Your task to perform on an android device: Is it going to rain this weekend? Image 0: 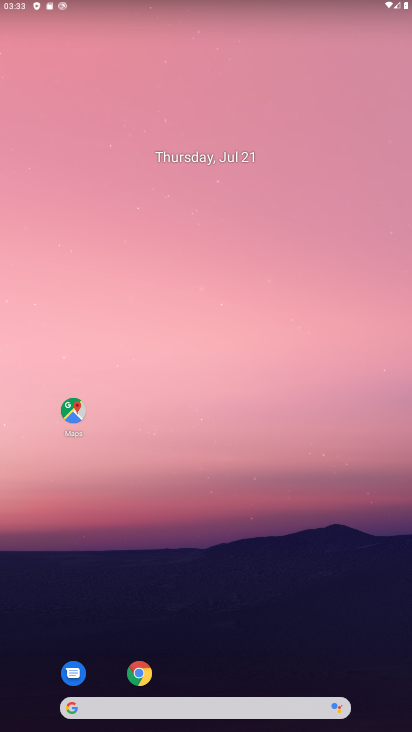
Step 0: drag from (295, 644) to (220, 43)
Your task to perform on an android device: Is it going to rain this weekend? Image 1: 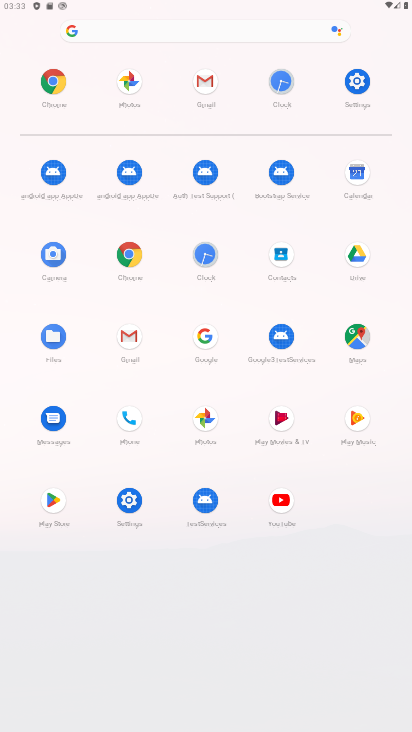
Step 1: click (52, 78)
Your task to perform on an android device: Is it going to rain this weekend? Image 2: 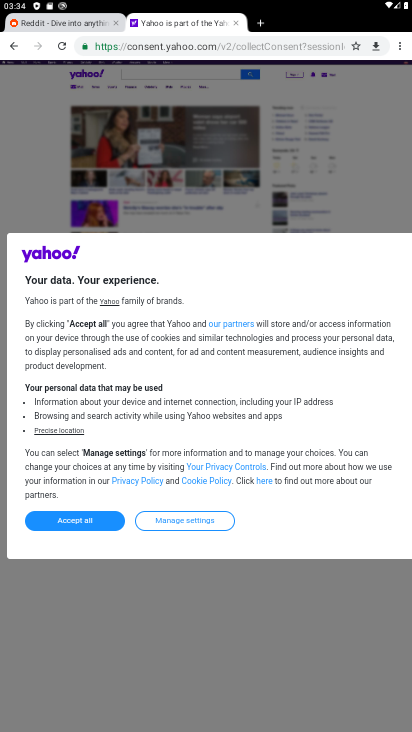
Step 2: click (302, 42)
Your task to perform on an android device: Is it going to rain this weekend? Image 3: 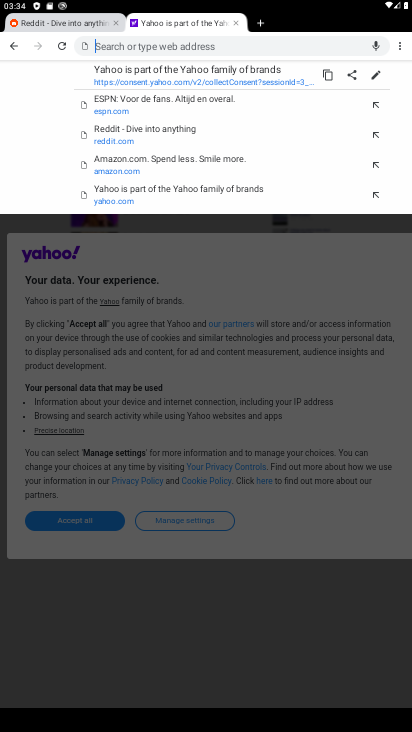
Step 3: type "weather"
Your task to perform on an android device: Is it going to rain this weekend? Image 4: 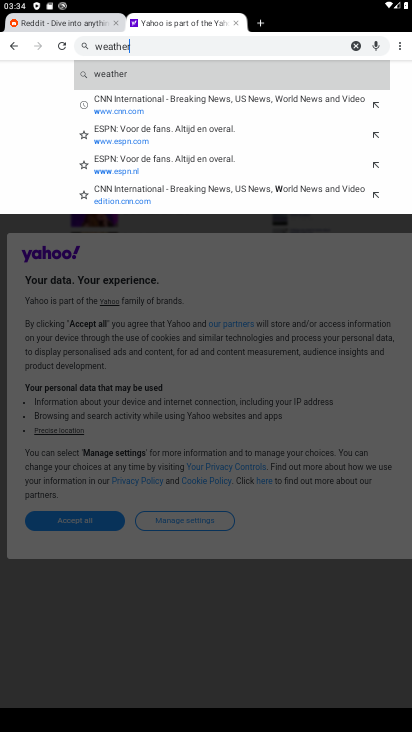
Step 4: type ""
Your task to perform on an android device: Is it going to rain this weekend? Image 5: 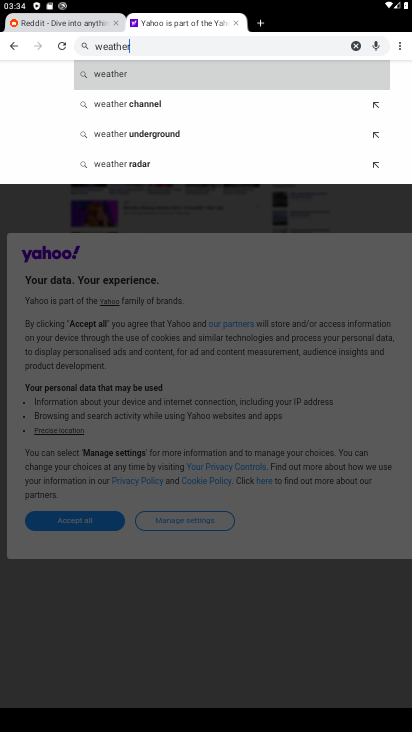
Step 5: click (162, 71)
Your task to perform on an android device: Is it going to rain this weekend? Image 6: 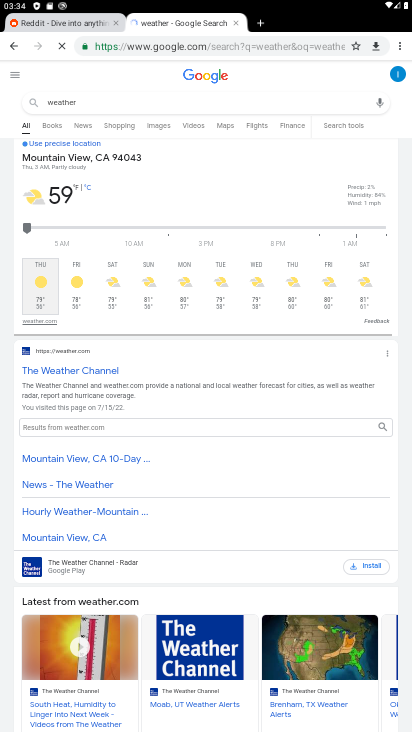
Step 6: click (119, 279)
Your task to perform on an android device: Is it going to rain this weekend? Image 7: 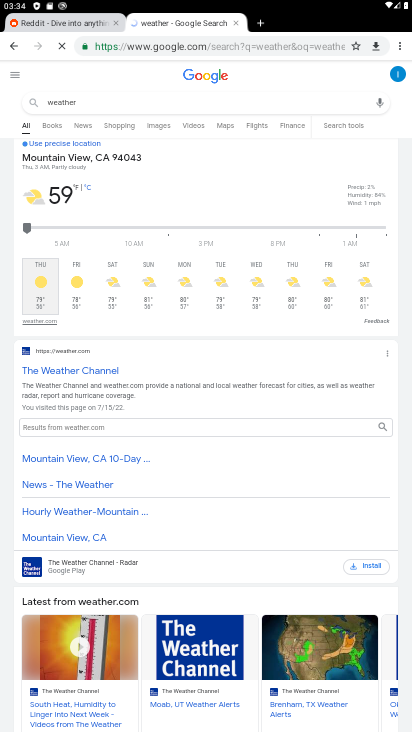
Step 7: click (119, 279)
Your task to perform on an android device: Is it going to rain this weekend? Image 8: 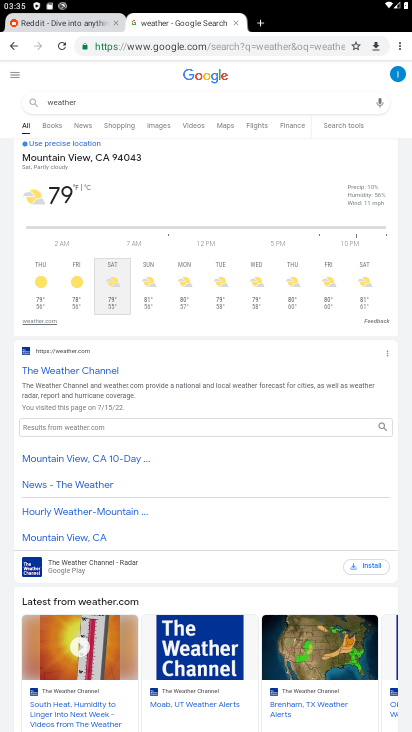
Step 8: task complete